Your task to perform on an android device: empty trash in google photos Image 0: 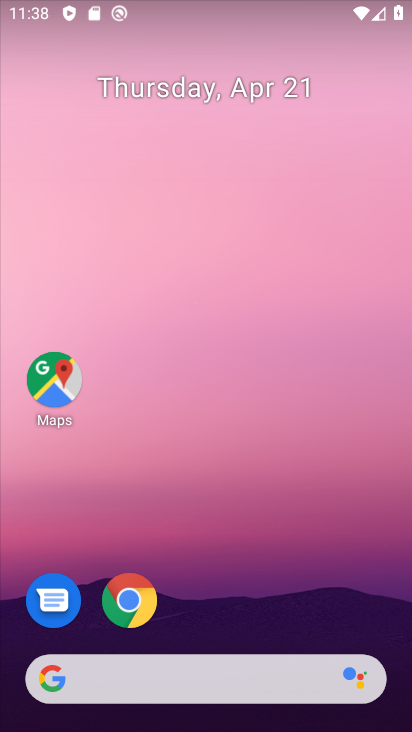
Step 0: drag from (221, 601) to (235, 196)
Your task to perform on an android device: empty trash in google photos Image 1: 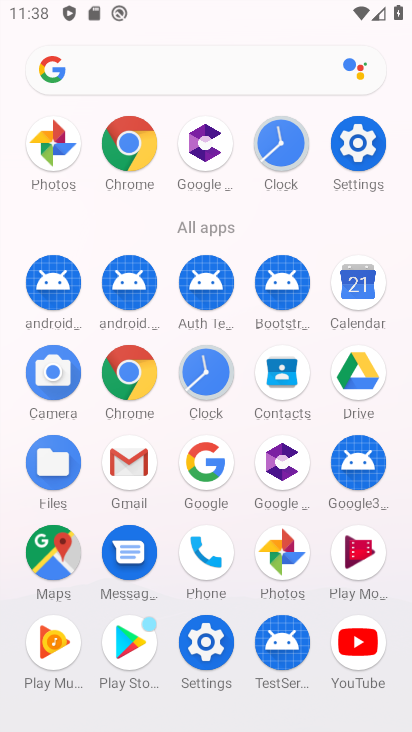
Step 1: click (284, 546)
Your task to perform on an android device: empty trash in google photos Image 2: 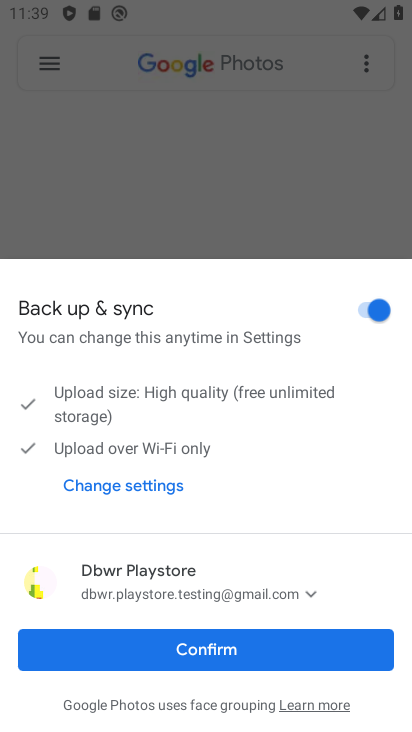
Step 2: click (154, 632)
Your task to perform on an android device: empty trash in google photos Image 3: 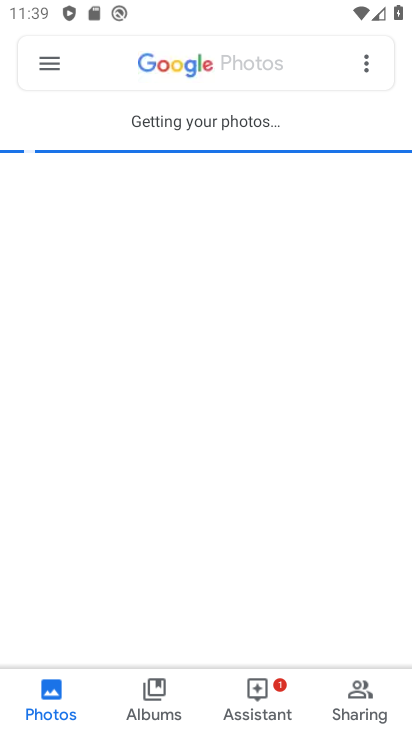
Step 3: click (56, 70)
Your task to perform on an android device: empty trash in google photos Image 4: 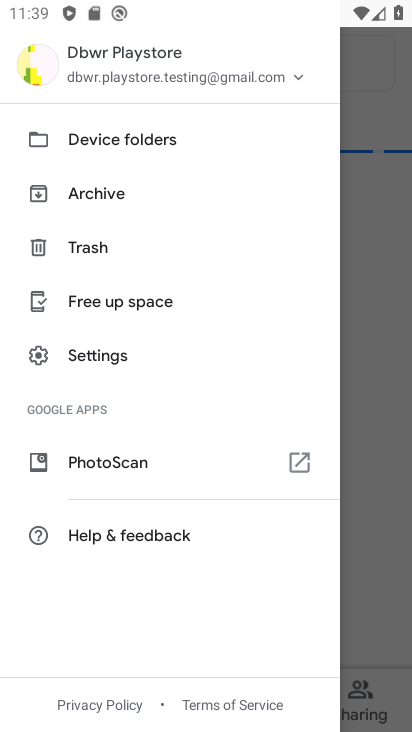
Step 4: click (107, 246)
Your task to perform on an android device: empty trash in google photos Image 5: 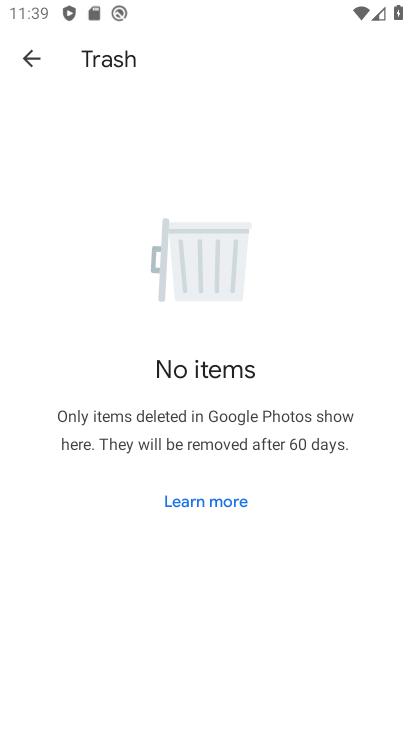
Step 5: task complete